Your task to perform on an android device: When is my next meeting? Image 0: 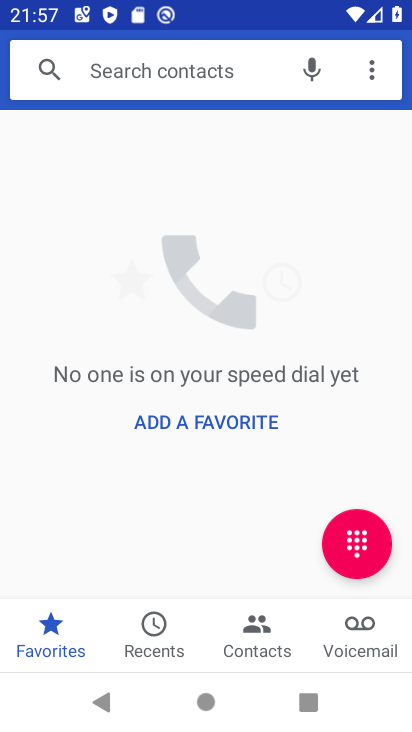
Step 0: press home button
Your task to perform on an android device: When is my next meeting? Image 1: 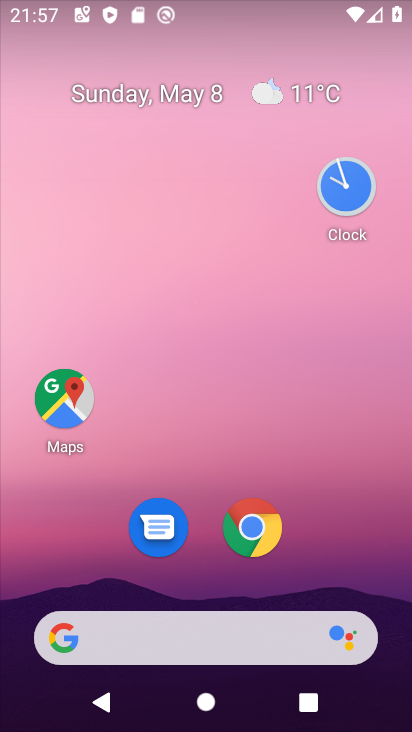
Step 1: drag from (291, 484) to (369, 134)
Your task to perform on an android device: When is my next meeting? Image 2: 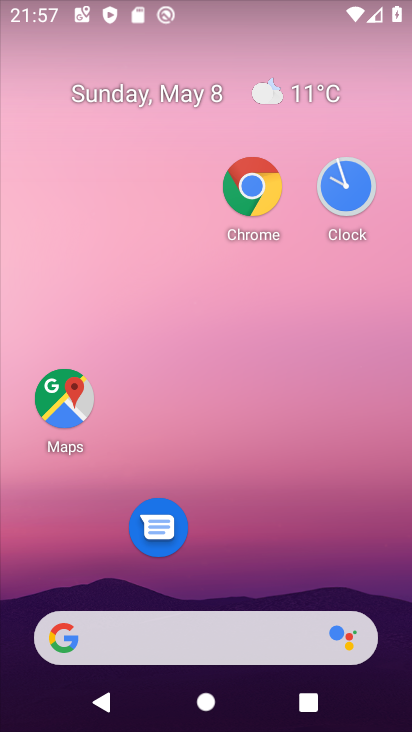
Step 2: click (187, 97)
Your task to perform on an android device: When is my next meeting? Image 3: 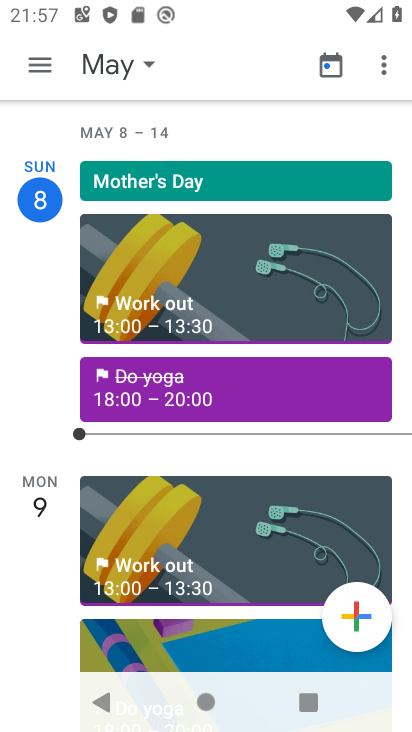
Step 3: task complete